Your task to perform on an android device: Open Youtube and go to the subscriptions tab Image 0: 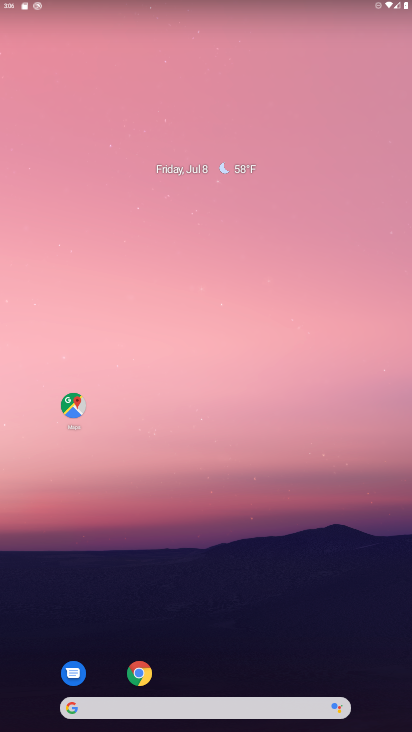
Step 0: drag from (203, 706) to (144, 399)
Your task to perform on an android device: Open Youtube and go to the subscriptions tab Image 1: 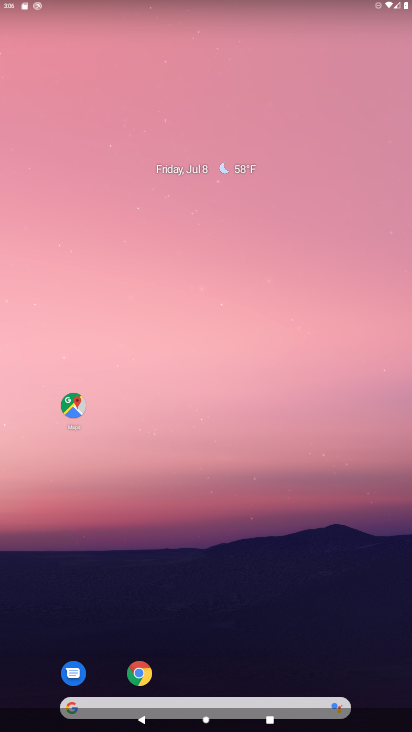
Step 1: drag from (259, 690) to (210, 319)
Your task to perform on an android device: Open Youtube and go to the subscriptions tab Image 2: 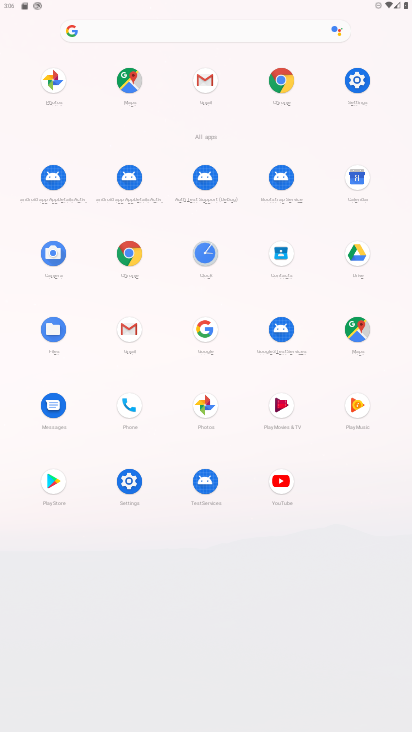
Step 2: click (283, 481)
Your task to perform on an android device: Open Youtube and go to the subscriptions tab Image 3: 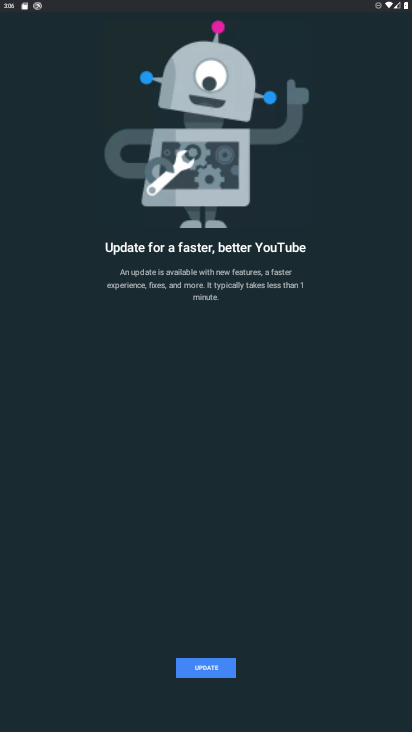
Step 3: click (213, 669)
Your task to perform on an android device: Open Youtube and go to the subscriptions tab Image 4: 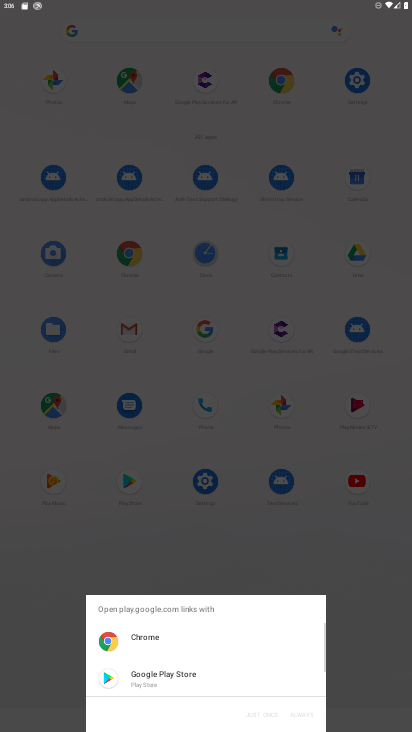
Step 4: click (142, 674)
Your task to perform on an android device: Open Youtube and go to the subscriptions tab Image 5: 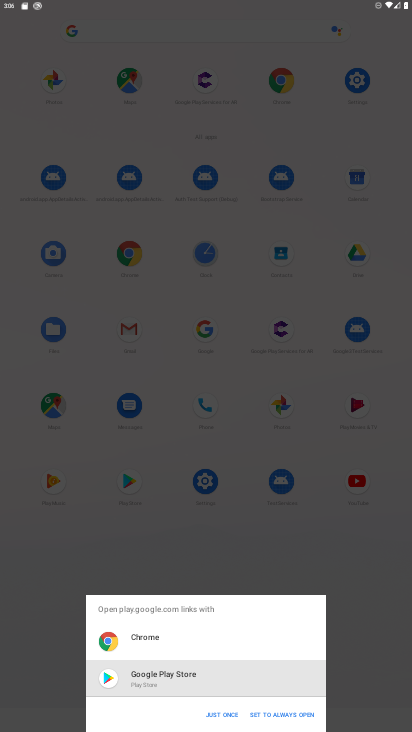
Step 5: click (213, 711)
Your task to perform on an android device: Open Youtube and go to the subscriptions tab Image 6: 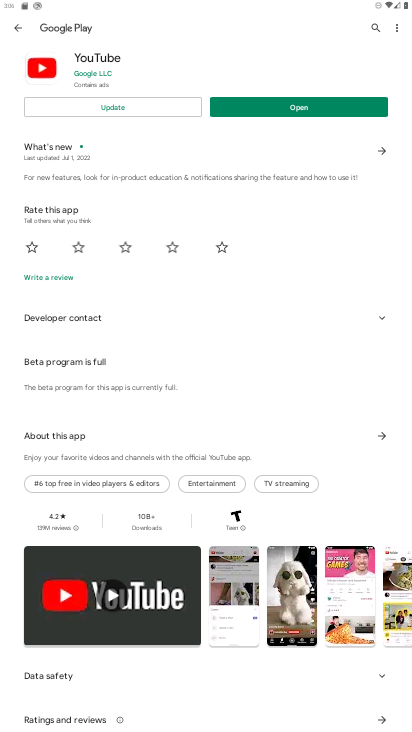
Step 6: click (124, 109)
Your task to perform on an android device: Open Youtube and go to the subscriptions tab Image 7: 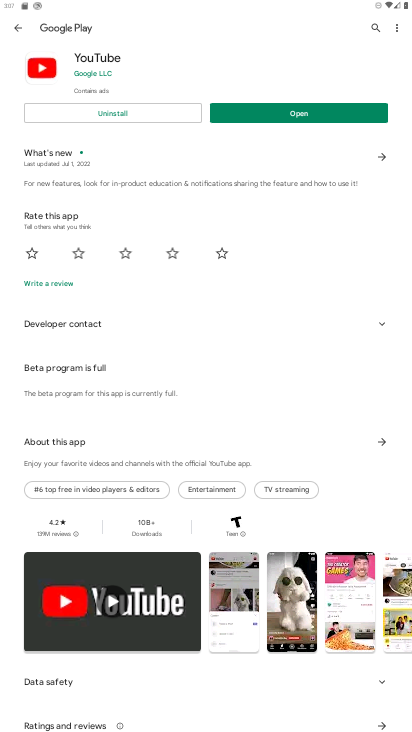
Step 7: click (289, 113)
Your task to perform on an android device: Open Youtube and go to the subscriptions tab Image 8: 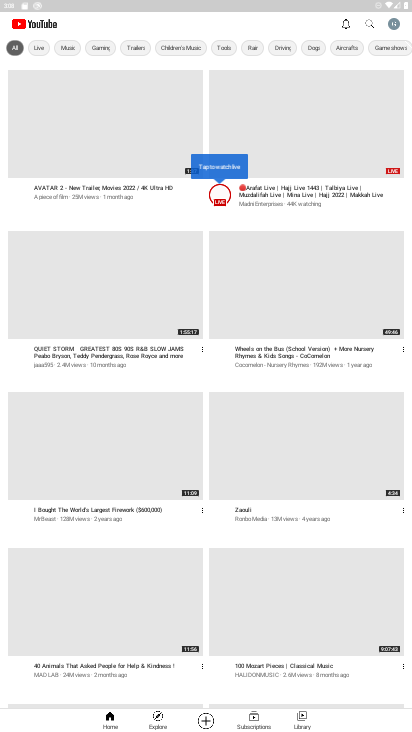
Step 8: click (251, 721)
Your task to perform on an android device: Open Youtube and go to the subscriptions tab Image 9: 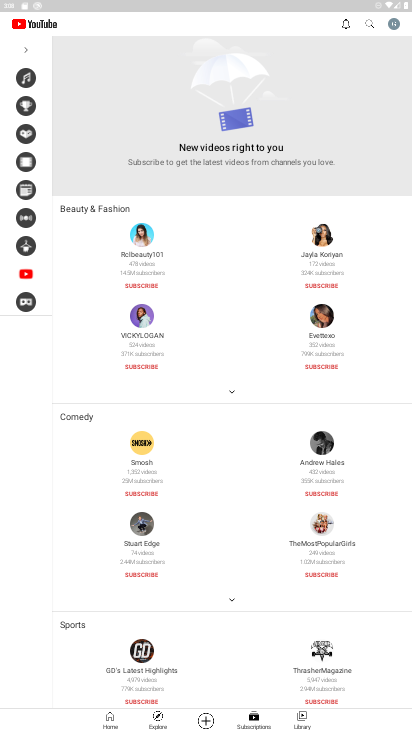
Step 9: task complete